Your task to perform on an android device: Open the Play Movies app and select the watchlist tab. Image 0: 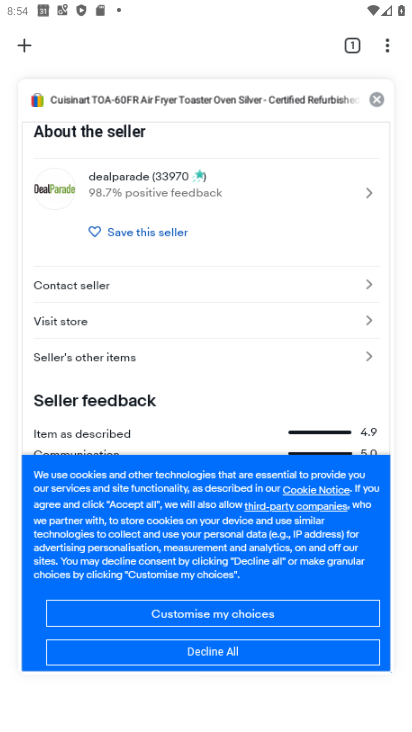
Step 0: press home button
Your task to perform on an android device: Open the Play Movies app and select the watchlist tab. Image 1: 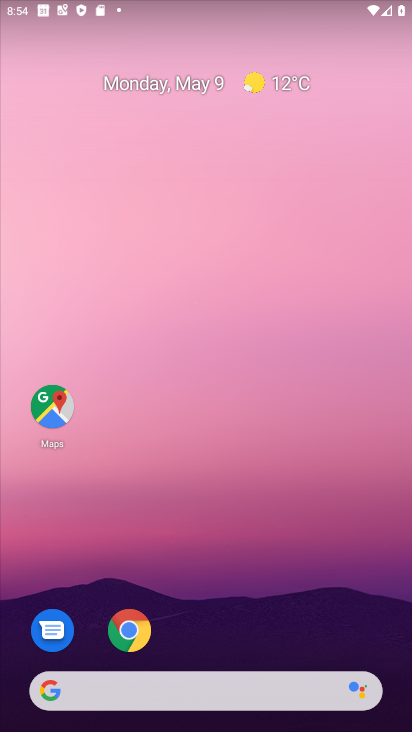
Step 1: drag from (187, 669) to (237, 321)
Your task to perform on an android device: Open the Play Movies app and select the watchlist tab. Image 2: 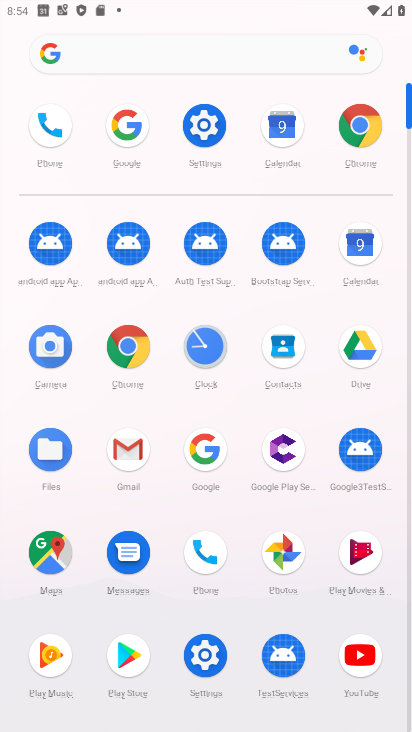
Step 2: click (350, 563)
Your task to perform on an android device: Open the Play Movies app and select the watchlist tab. Image 3: 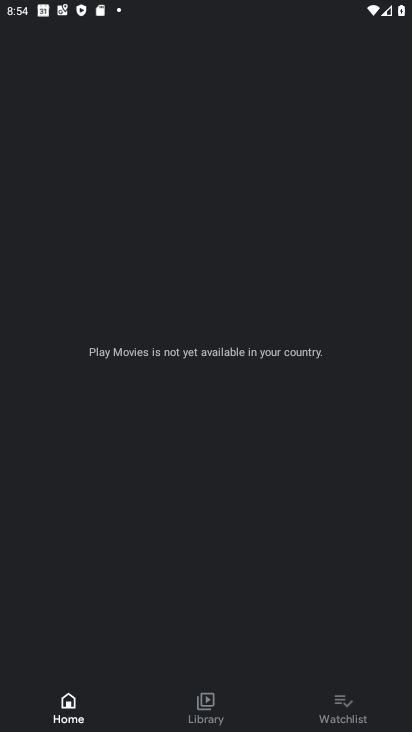
Step 3: click (334, 696)
Your task to perform on an android device: Open the Play Movies app and select the watchlist tab. Image 4: 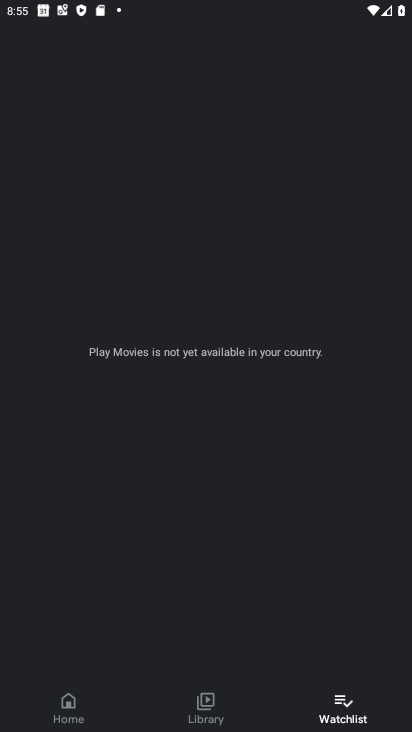
Step 4: task complete